Your task to perform on an android device: Open Reddit.com Image 0: 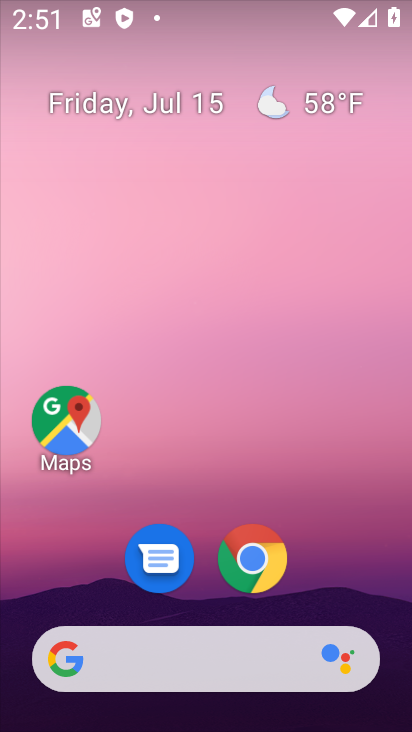
Step 0: drag from (363, 574) to (364, 121)
Your task to perform on an android device: Open Reddit.com Image 1: 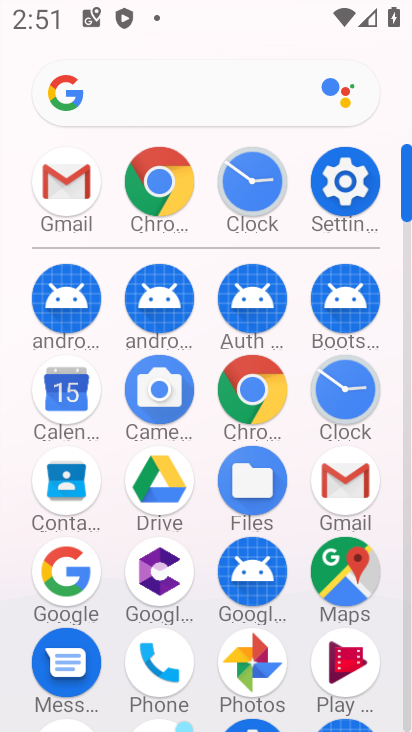
Step 1: click (263, 393)
Your task to perform on an android device: Open Reddit.com Image 2: 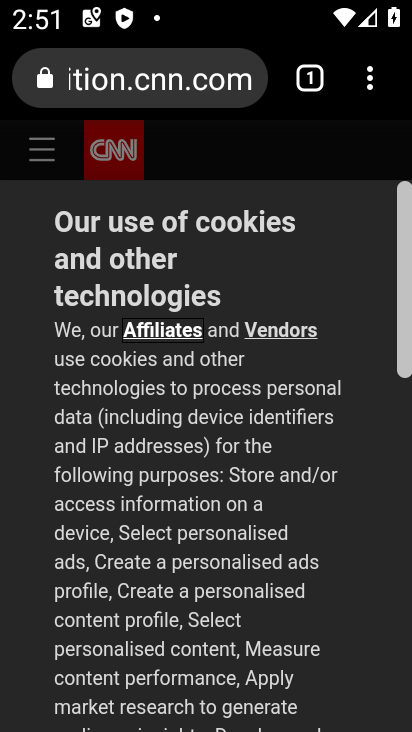
Step 2: click (225, 91)
Your task to perform on an android device: Open Reddit.com Image 3: 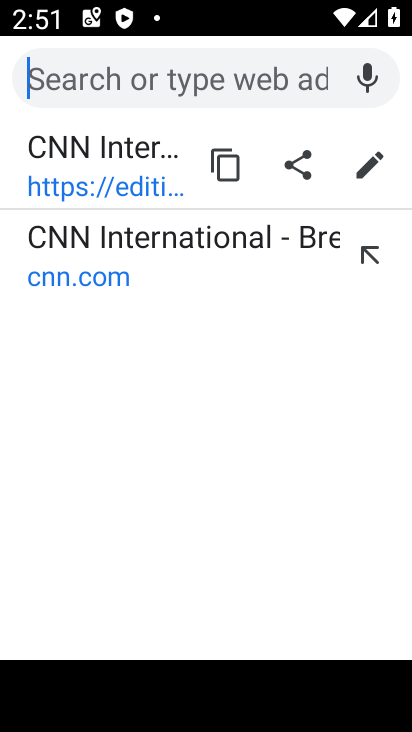
Step 3: type "reddit.com"
Your task to perform on an android device: Open Reddit.com Image 4: 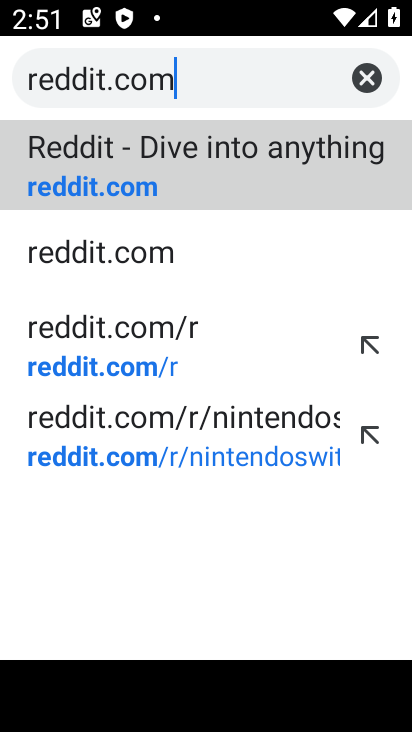
Step 4: click (289, 183)
Your task to perform on an android device: Open Reddit.com Image 5: 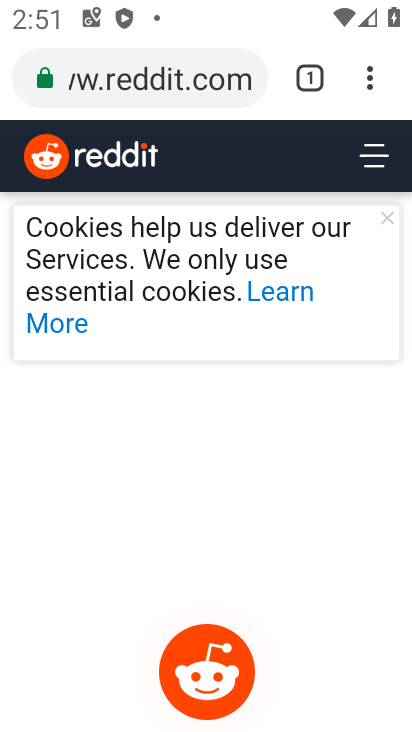
Step 5: task complete